Your task to perform on an android device: Open Chrome and go to settings Image 0: 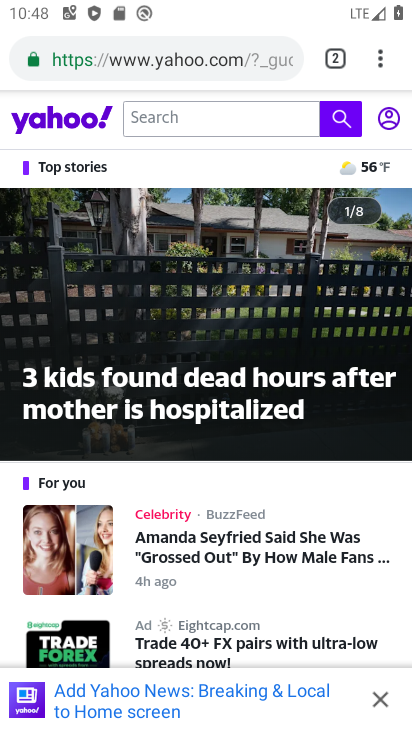
Step 0: click (385, 51)
Your task to perform on an android device: Open Chrome and go to settings Image 1: 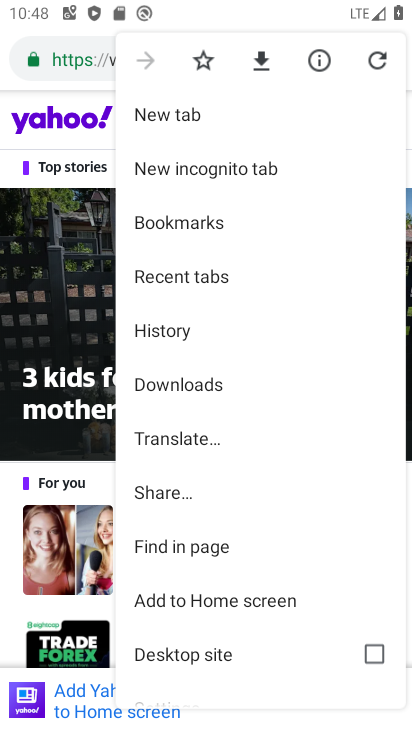
Step 1: drag from (234, 624) to (249, 250)
Your task to perform on an android device: Open Chrome and go to settings Image 2: 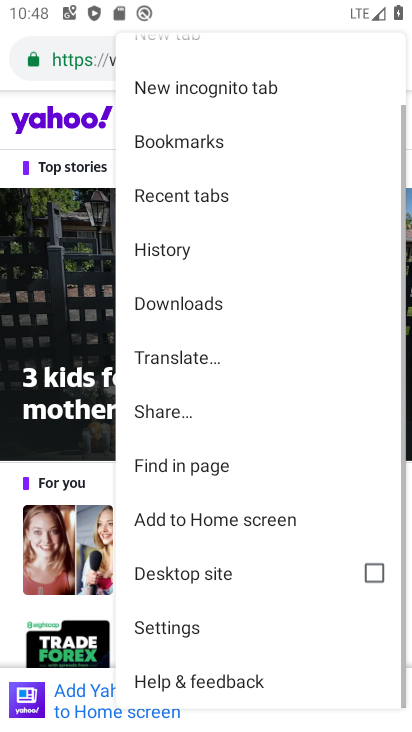
Step 2: click (205, 622)
Your task to perform on an android device: Open Chrome and go to settings Image 3: 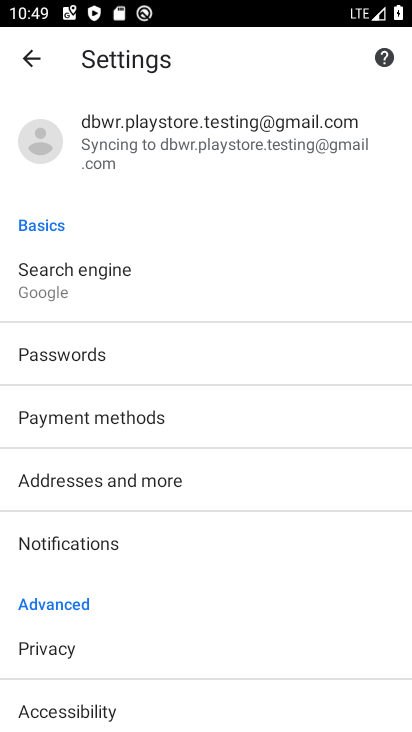
Step 3: task complete